Your task to perform on an android device: Open Youtube and go to the subscriptions tab Image 0: 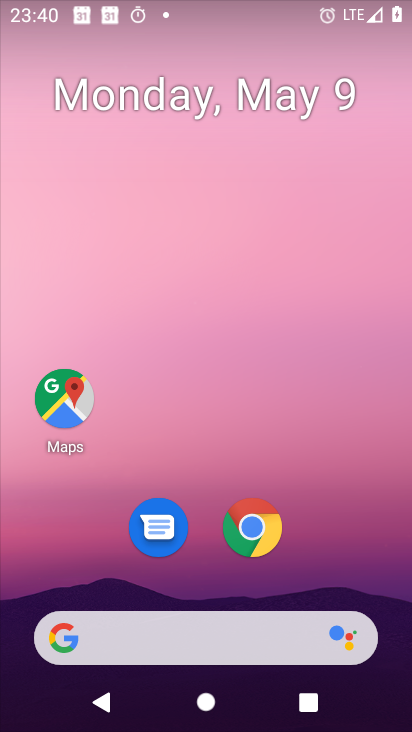
Step 0: drag from (207, 580) to (187, 93)
Your task to perform on an android device: Open Youtube and go to the subscriptions tab Image 1: 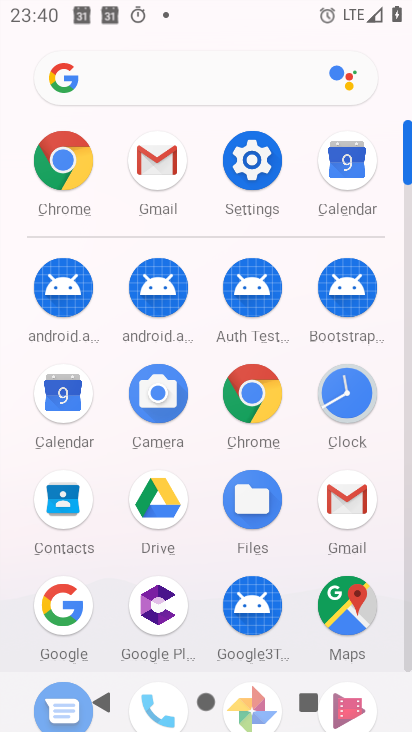
Step 1: drag from (207, 553) to (209, 124)
Your task to perform on an android device: Open Youtube and go to the subscriptions tab Image 2: 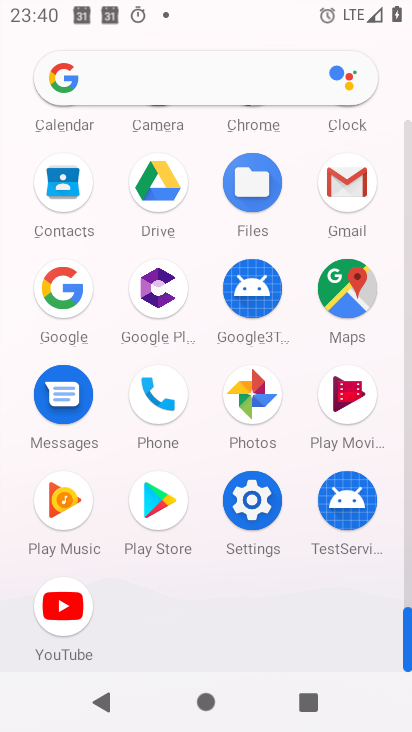
Step 2: click (59, 603)
Your task to perform on an android device: Open Youtube and go to the subscriptions tab Image 3: 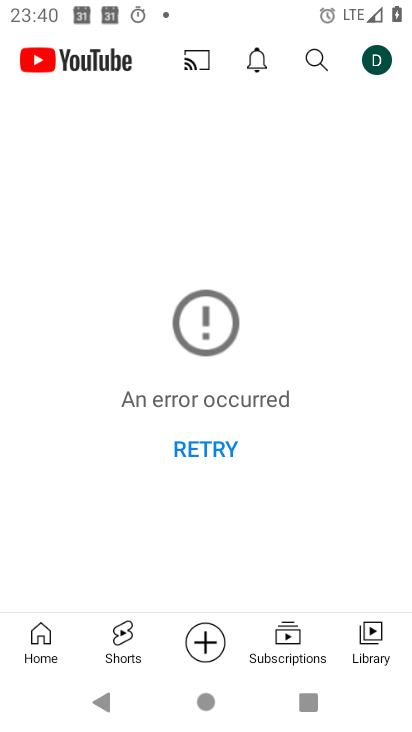
Step 3: click (273, 643)
Your task to perform on an android device: Open Youtube and go to the subscriptions tab Image 4: 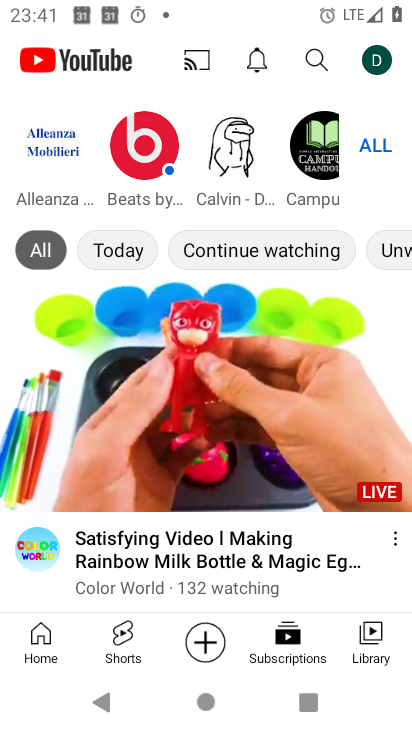
Step 4: task complete